Your task to perform on an android device: Open Youtube and go to "Your channel" Image 0: 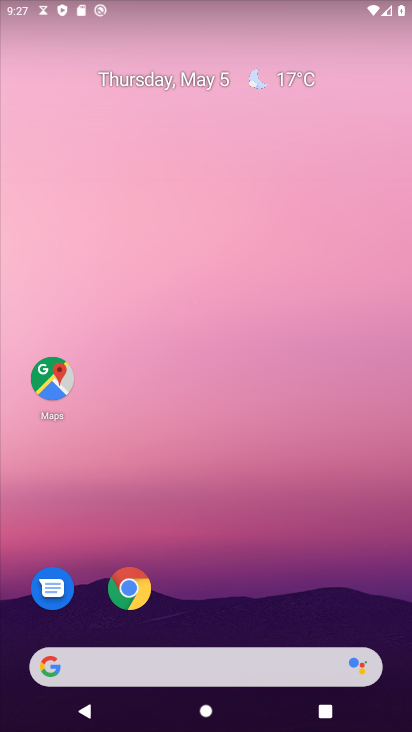
Step 0: drag from (255, 574) to (301, 262)
Your task to perform on an android device: Open Youtube and go to "Your channel" Image 1: 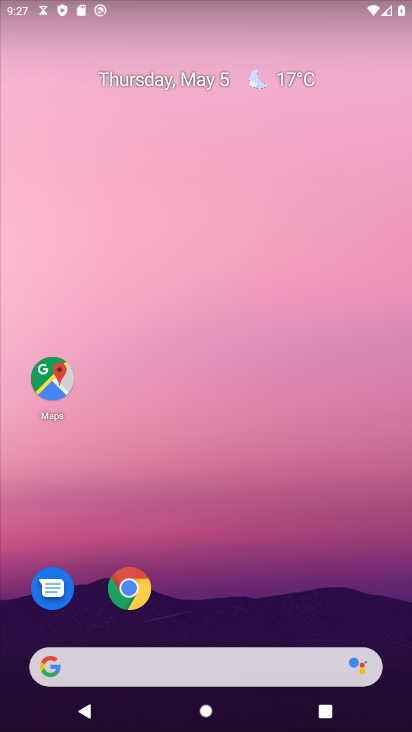
Step 1: drag from (253, 596) to (292, 283)
Your task to perform on an android device: Open Youtube and go to "Your channel" Image 2: 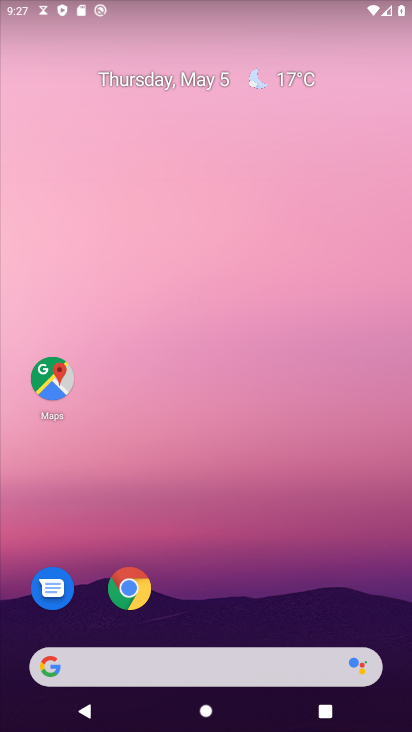
Step 2: drag from (257, 450) to (275, 227)
Your task to perform on an android device: Open Youtube and go to "Your channel" Image 3: 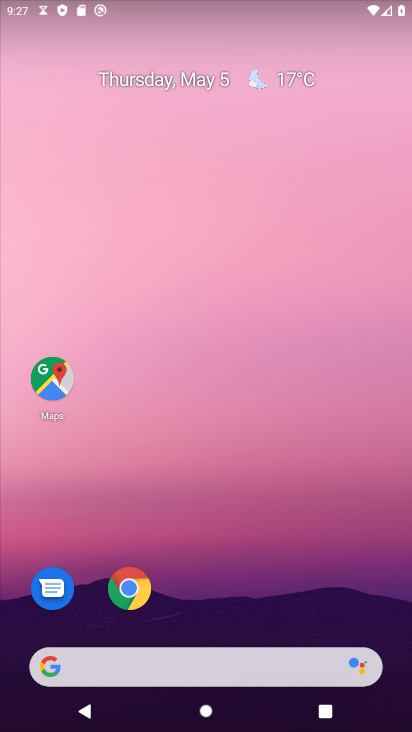
Step 3: drag from (215, 580) to (274, 287)
Your task to perform on an android device: Open Youtube and go to "Your channel" Image 4: 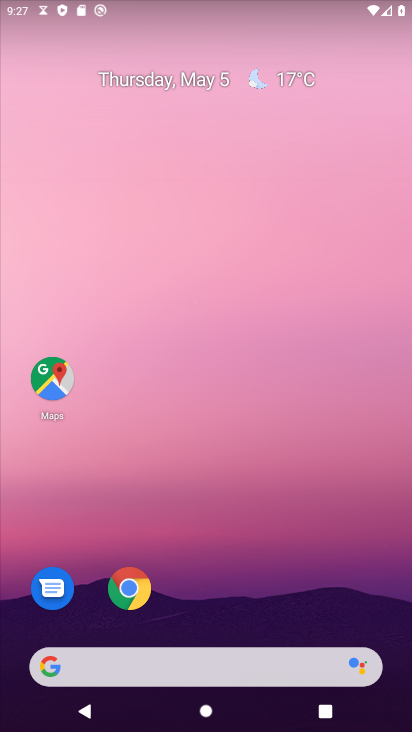
Step 4: drag from (211, 576) to (227, 251)
Your task to perform on an android device: Open Youtube and go to "Your channel" Image 5: 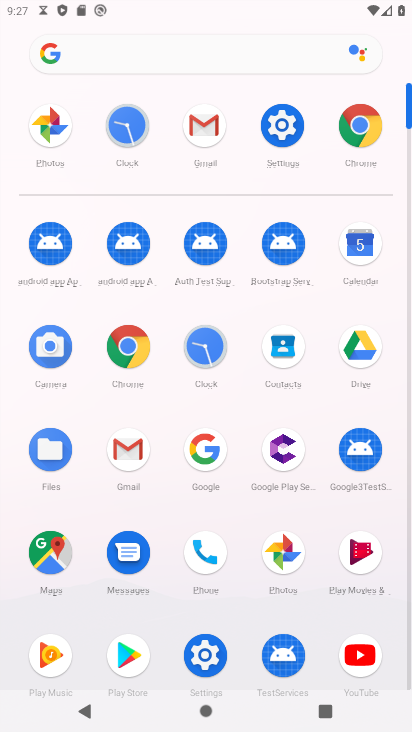
Step 5: click (357, 648)
Your task to perform on an android device: Open Youtube and go to "Your channel" Image 6: 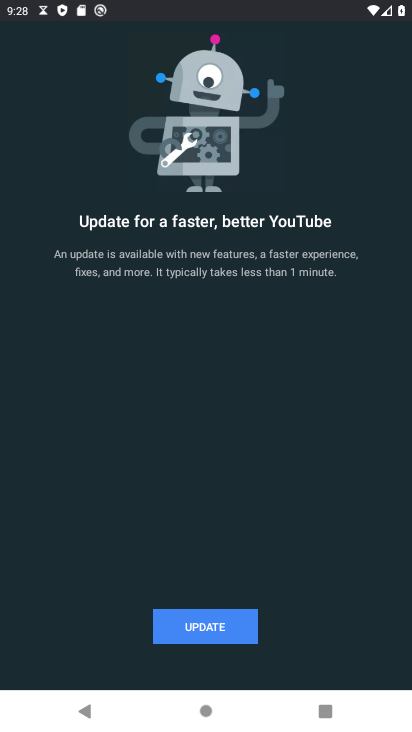
Step 6: task complete